Your task to perform on an android device: Open accessibility settings Image 0: 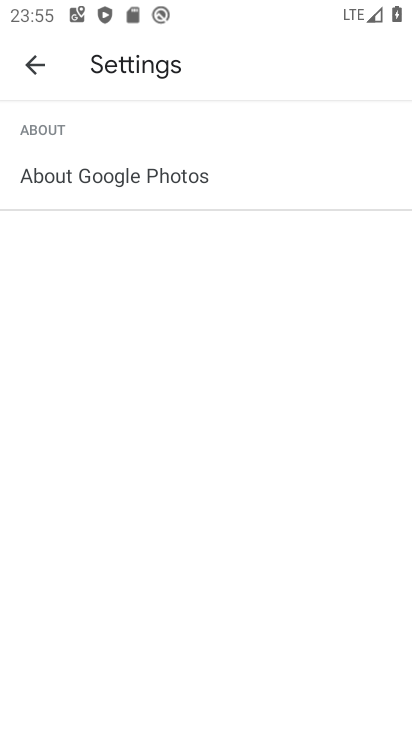
Step 0: press home button
Your task to perform on an android device: Open accessibility settings Image 1: 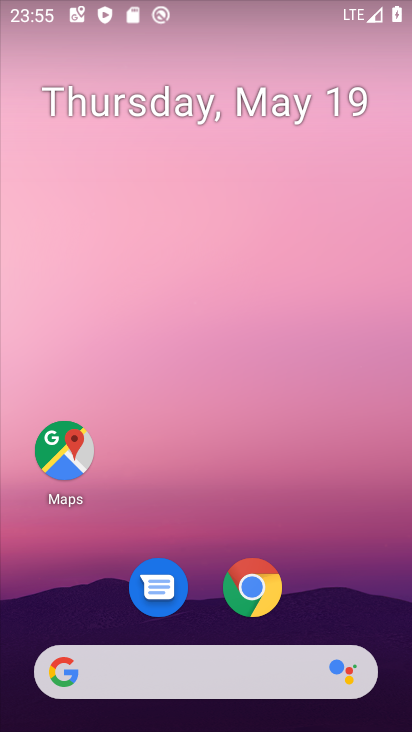
Step 1: drag from (241, 719) to (142, 0)
Your task to perform on an android device: Open accessibility settings Image 2: 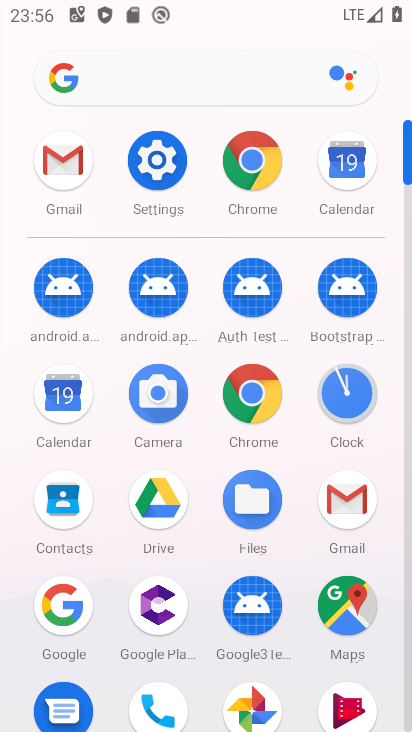
Step 2: click (170, 158)
Your task to perform on an android device: Open accessibility settings Image 3: 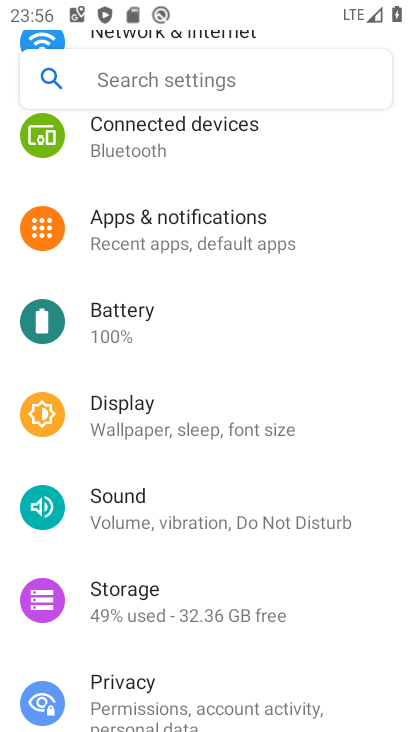
Step 3: click (123, 83)
Your task to perform on an android device: Open accessibility settings Image 4: 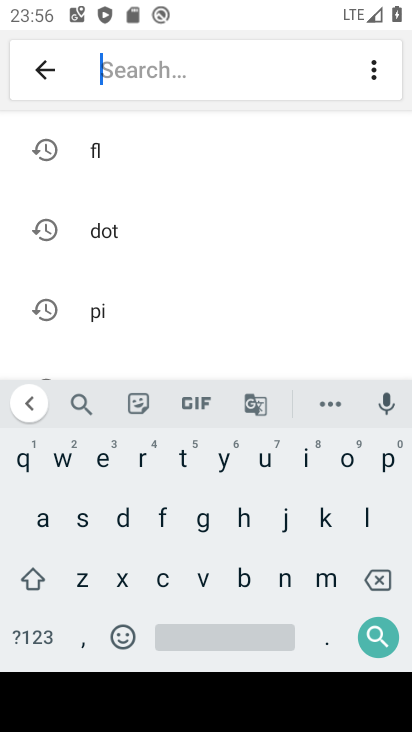
Step 4: click (44, 519)
Your task to perform on an android device: Open accessibility settings Image 5: 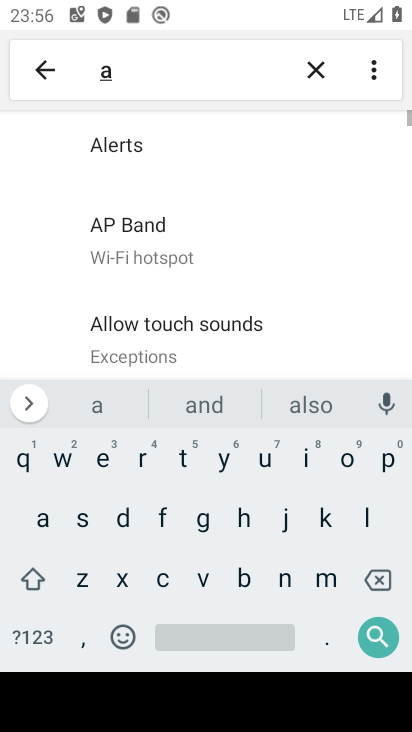
Step 5: click (166, 578)
Your task to perform on an android device: Open accessibility settings Image 6: 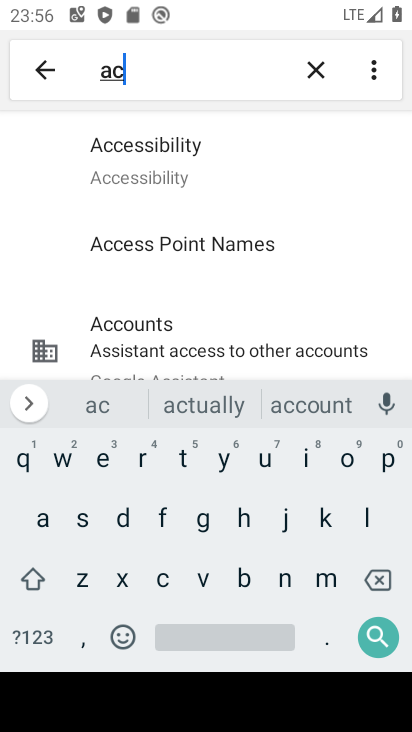
Step 6: click (154, 180)
Your task to perform on an android device: Open accessibility settings Image 7: 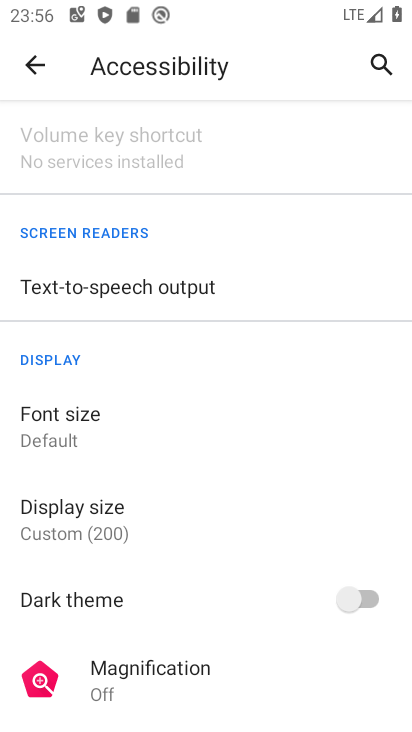
Step 7: task complete